Your task to perform on an android device: toggle priority inbox in the gmail app Image 0: 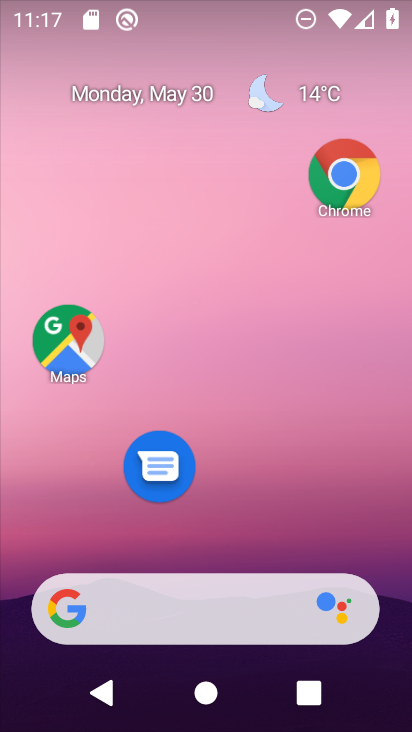
Step 0: drag from (245, 514) to (201, 27)
Your task to perform on an android device: toggle priority inbox in the gmail app Image 1: 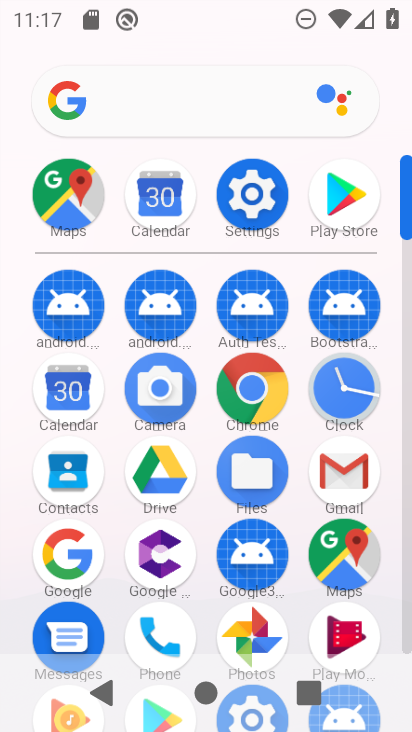
Step 1: click (332, 478)
Your task to perform on an android device: toggle priority inbox in the gmail app Image 2: 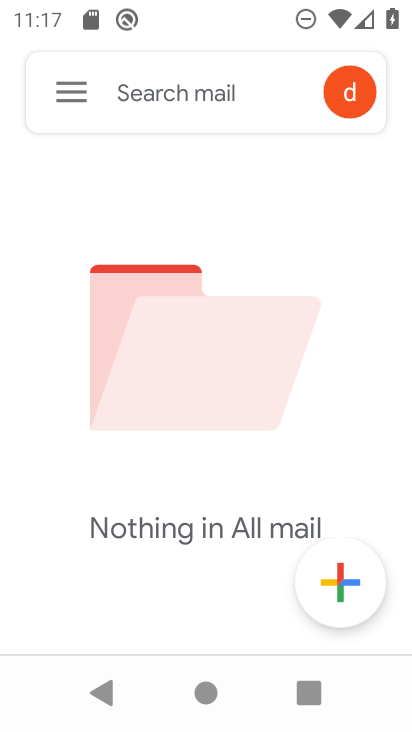
Step 2: click (79, 82)
Your task to perform on an android device: toggle priority inbox in the gmail app Image 3: 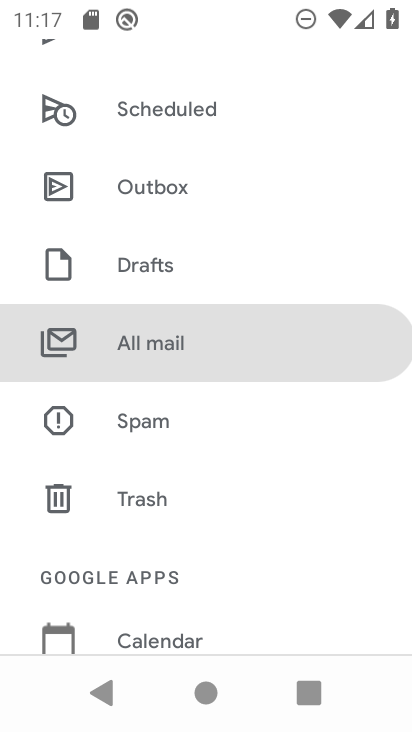
Step 3: drag from (190, 491) to (238, 111)
Your task to perform on an android device: toggle priority inbox in the gmail app Image 4: 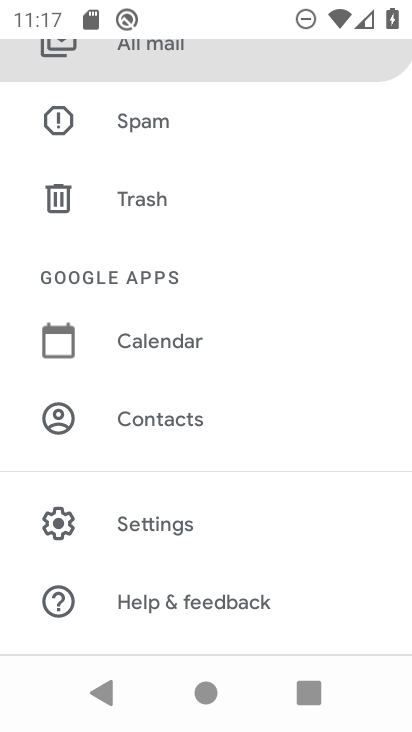
Step 4: click (122, 512)
Your task to perform on an android device: toggle priority inbox in the gmail app Image 5: 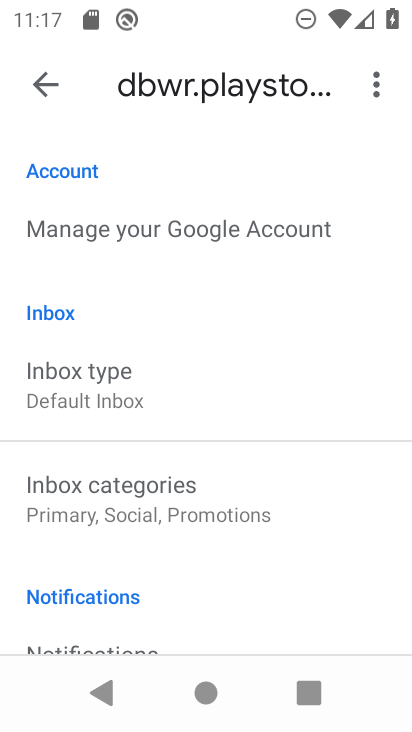
Step 5: drag from (228, 514) to (208, 280)
Your task to perform on an android device: toggle priority inbox in the gmail app Image 6: 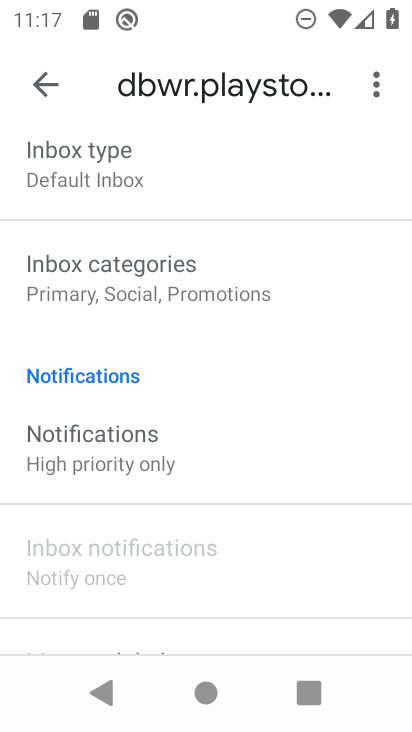
Step 6: click (185, 297)
Your task to perform on an android device: toggle priority inbox in the gmail app Image 7: 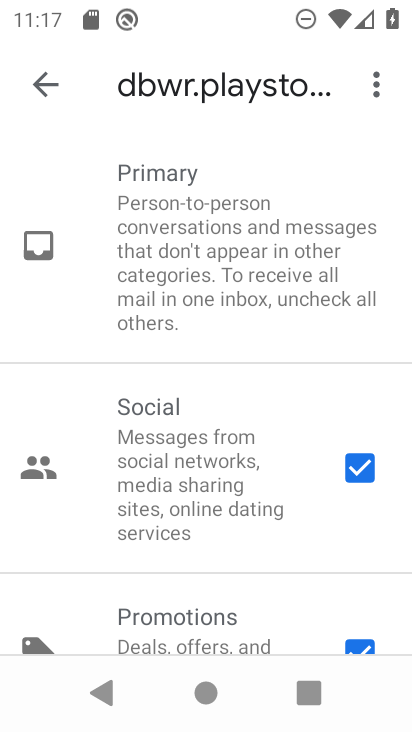
Step 7: drag from (168, 444) to (167, 206)
Your task to perform on an android device: toggle priority inbox in the gmail app Image 8: 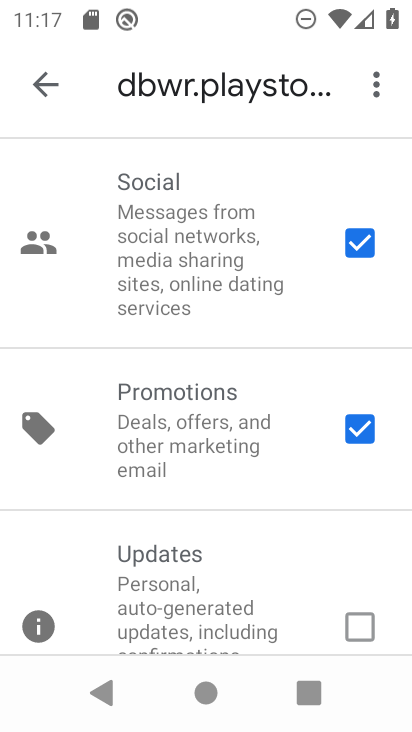
Step 8: drag from (138, 466) to (152, 211)
Your task to perform on an android device: toggle priority inbox in the gmail app Image 9: 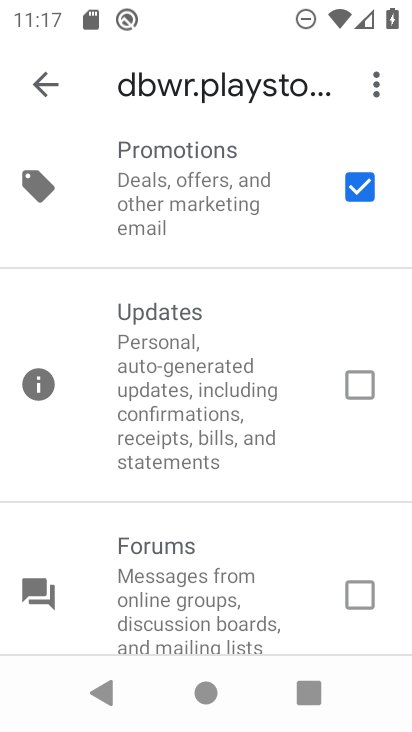
Step 9: press back button
Your task to perform on an android device: toggle priority inbox in the gmail app Image 10: 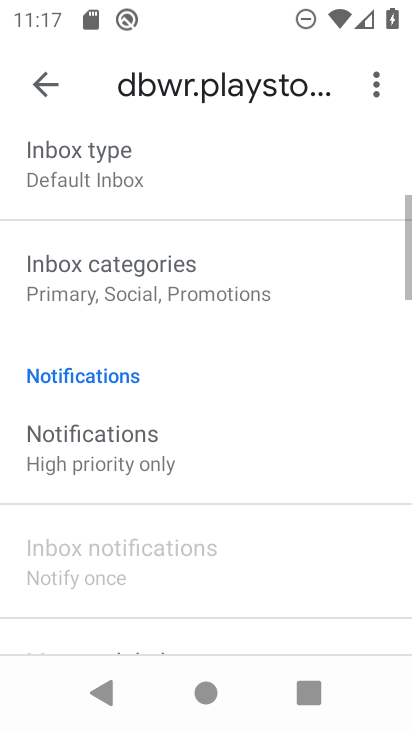
Step 10: drag from (240, 206) to (241, 463)
Your task to perform on an android device: toggle priority inbox in the gmail app Image 11: 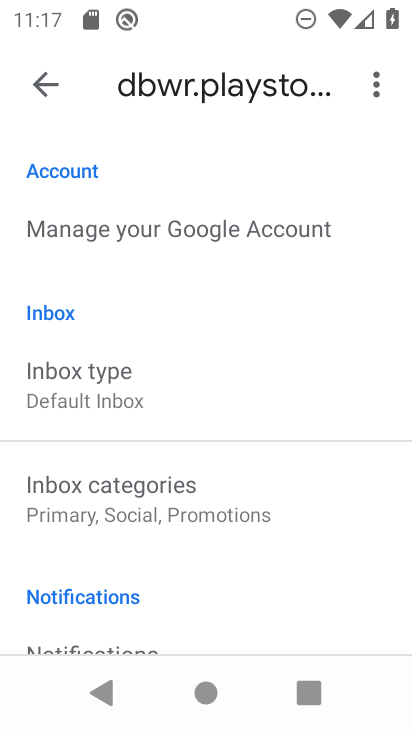
Step 11: click (213, 399)
Your task to perform on an android device: toggle priority inbox in the gmail app Image 12: 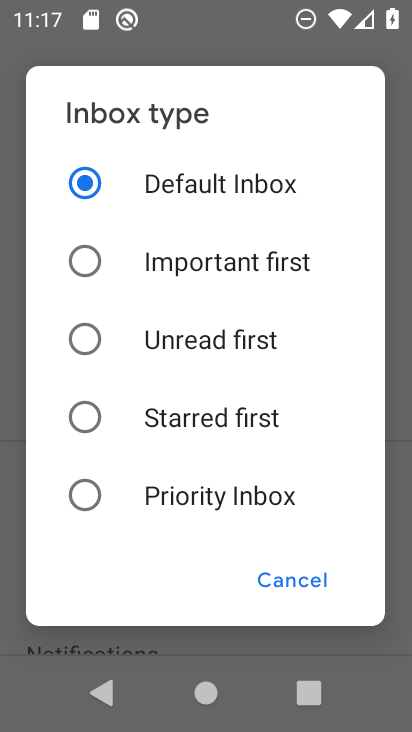
Step 12: click (83, 483)
Your task to perform on an android device: toggle priority inbox in the gmail app Image 13: 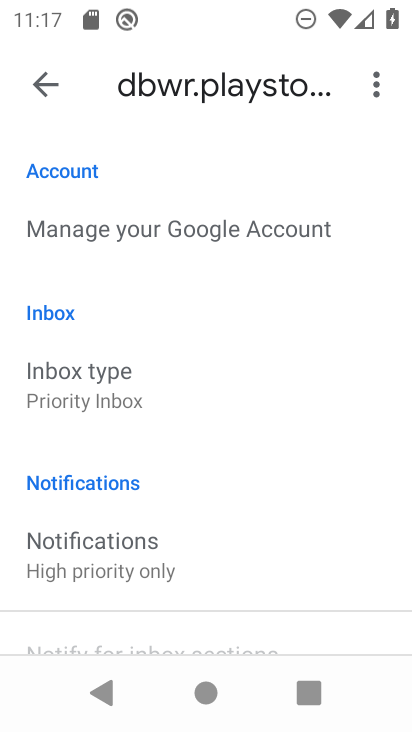
Step 13: task complete